Your task to perform on an android device: delete browsing data in the chrome app Image 0: 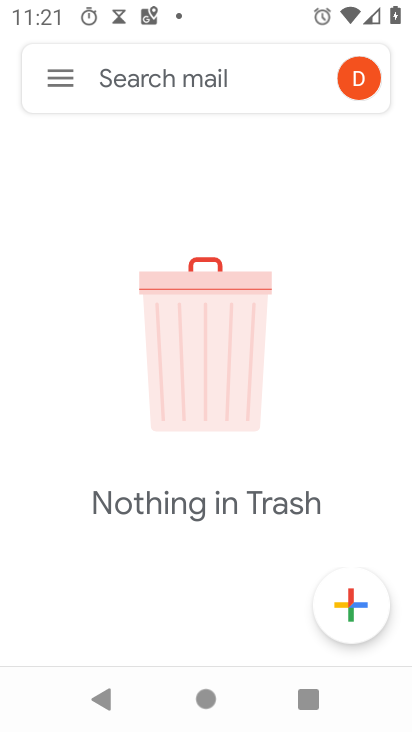
Step 0: press home button
Your task to perform on an android device: delete browsing data in the chrome app Image 1: 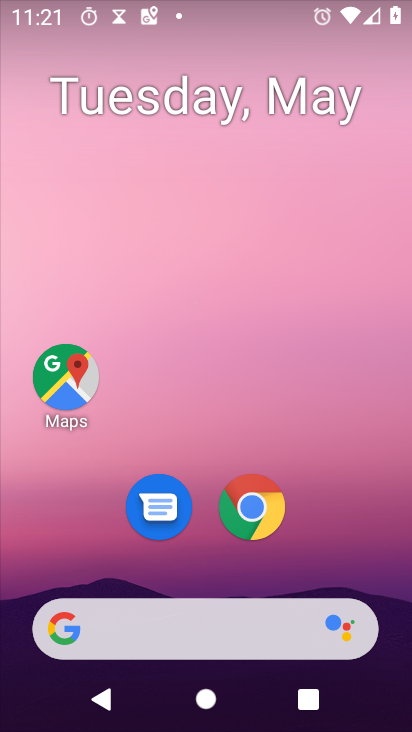
Step 1: click (238, 501)
Your task to perform on an android device: delete browsing data in the chrome app Image 2: 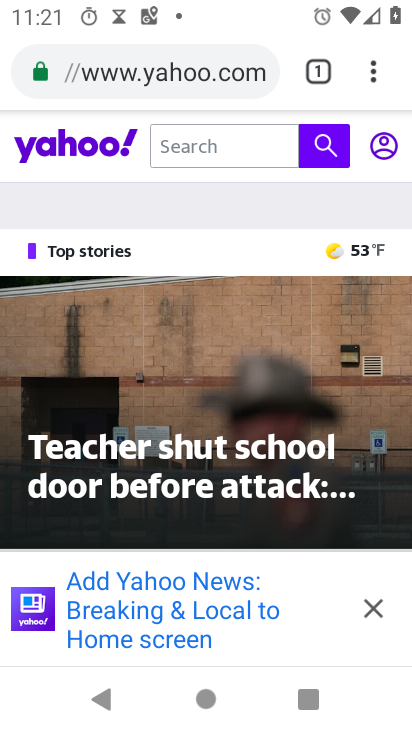
Step 2: click (382, 76)
Your task to perform on an android device: delete browsing data in the chrome app Image 3: 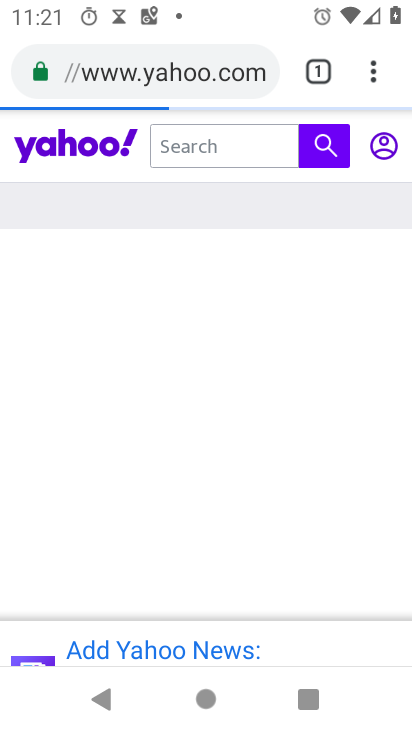
Step 3: click (384, 74)
Your task to perform on an android device: delete browsing data in the chrome app Image 4: 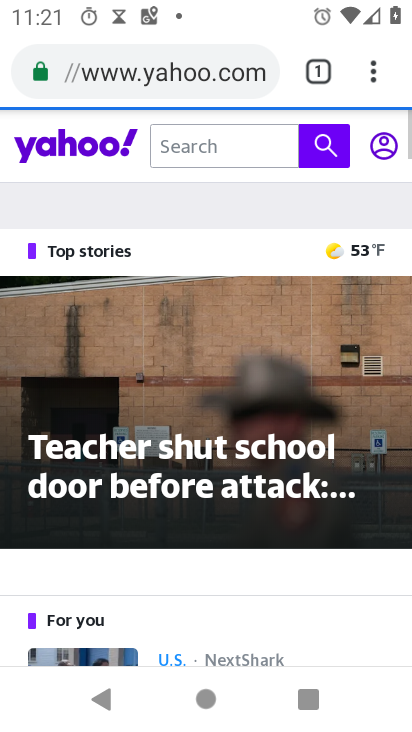
Step 4: click (370, 72)
Your task to perform on an android device: delete browsing data in the chrome app Image 5: 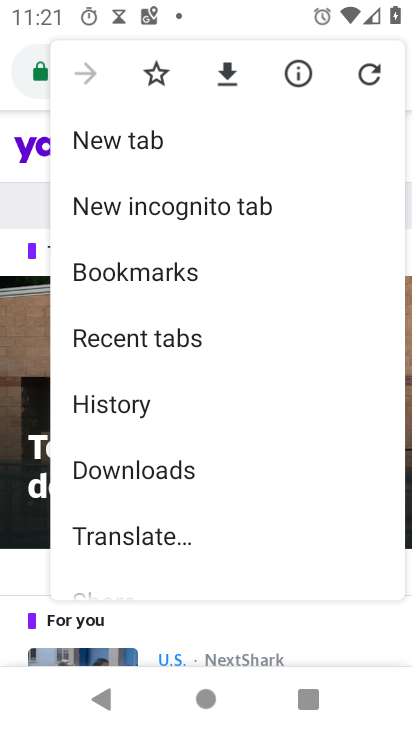
Step 5: click (118, 397)
Your task to perform on an android device: delete browsing data in the chrome app Image 6: 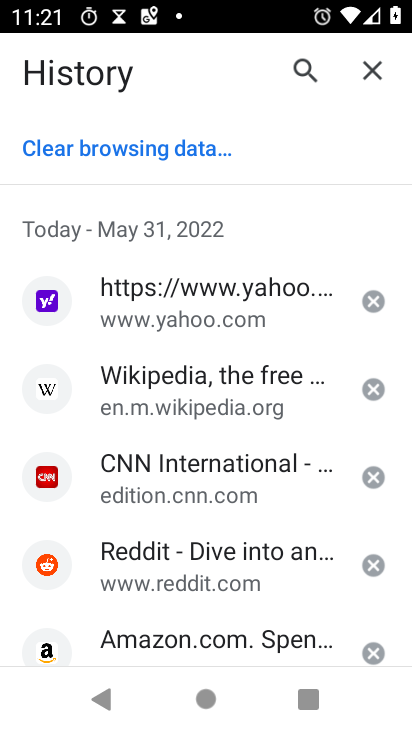
Step 6: click (151, 144)
Your task to perform on an android device: delete browsing data in the chrome app Image 7: 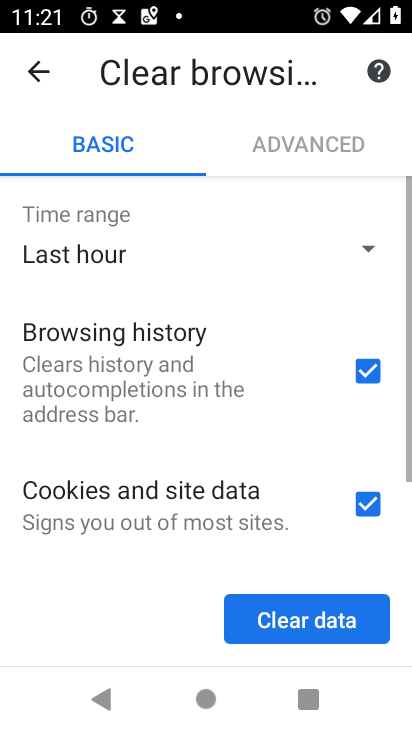
Step 7: click (325, 624)
Your task to perform on an android device: delete browsing data in the chrome app Image 8: 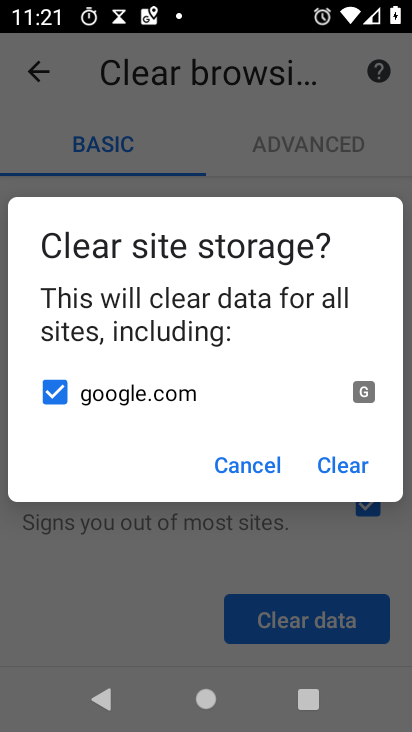
Step 8: click (325, 468)
Your task to perform on an android device: delete browsing data in the chrome app Image 9: 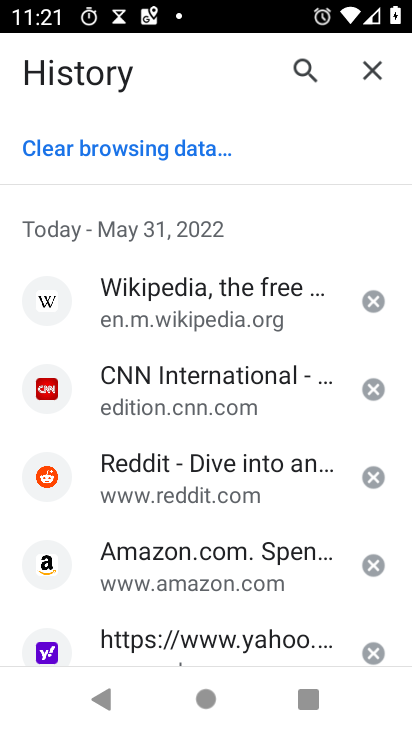
Step 9: task complete